Your task to perform on an android device: install app "Speedtest by Ookla" Image 0: 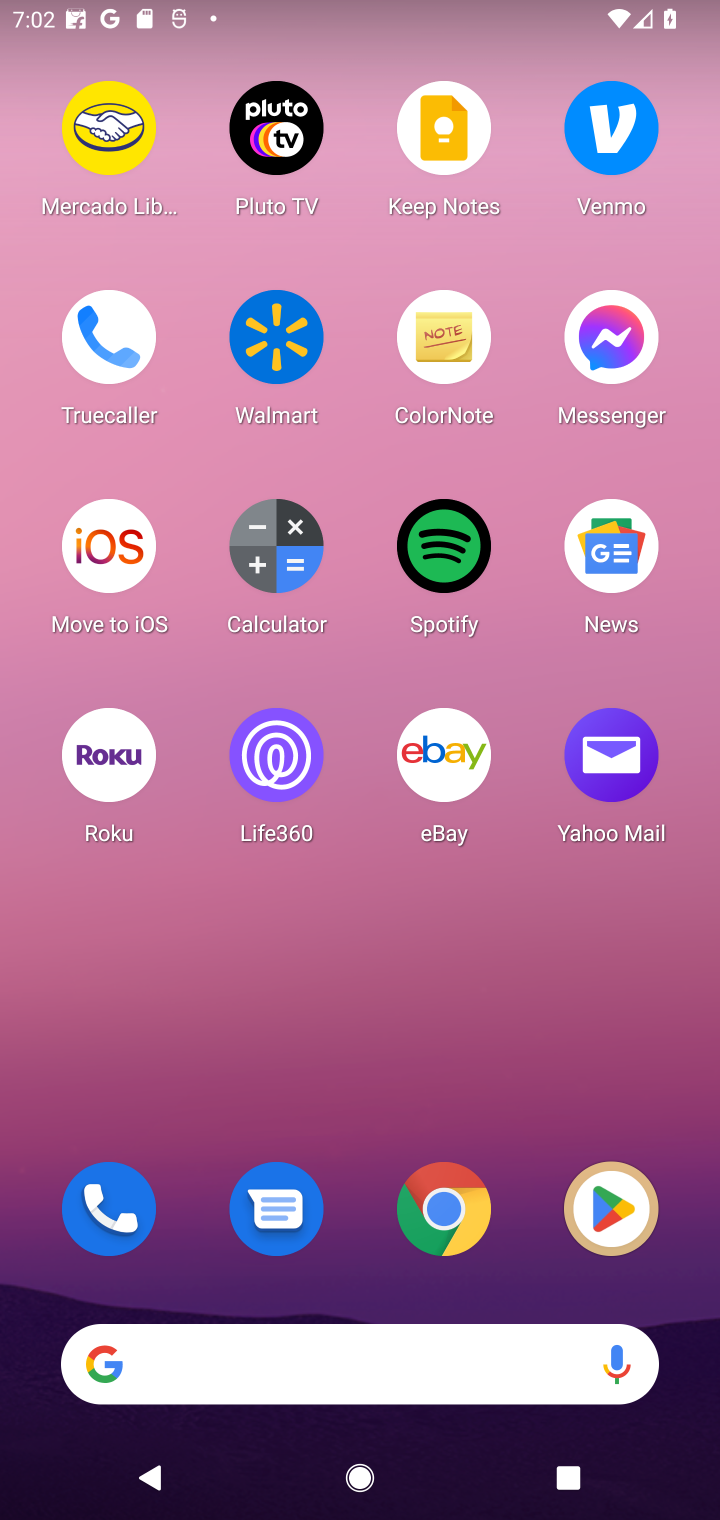
Step 0: click (573, 1232)
Your task to perform on an android device: install app "Speedtest by Ookla" Image 1: 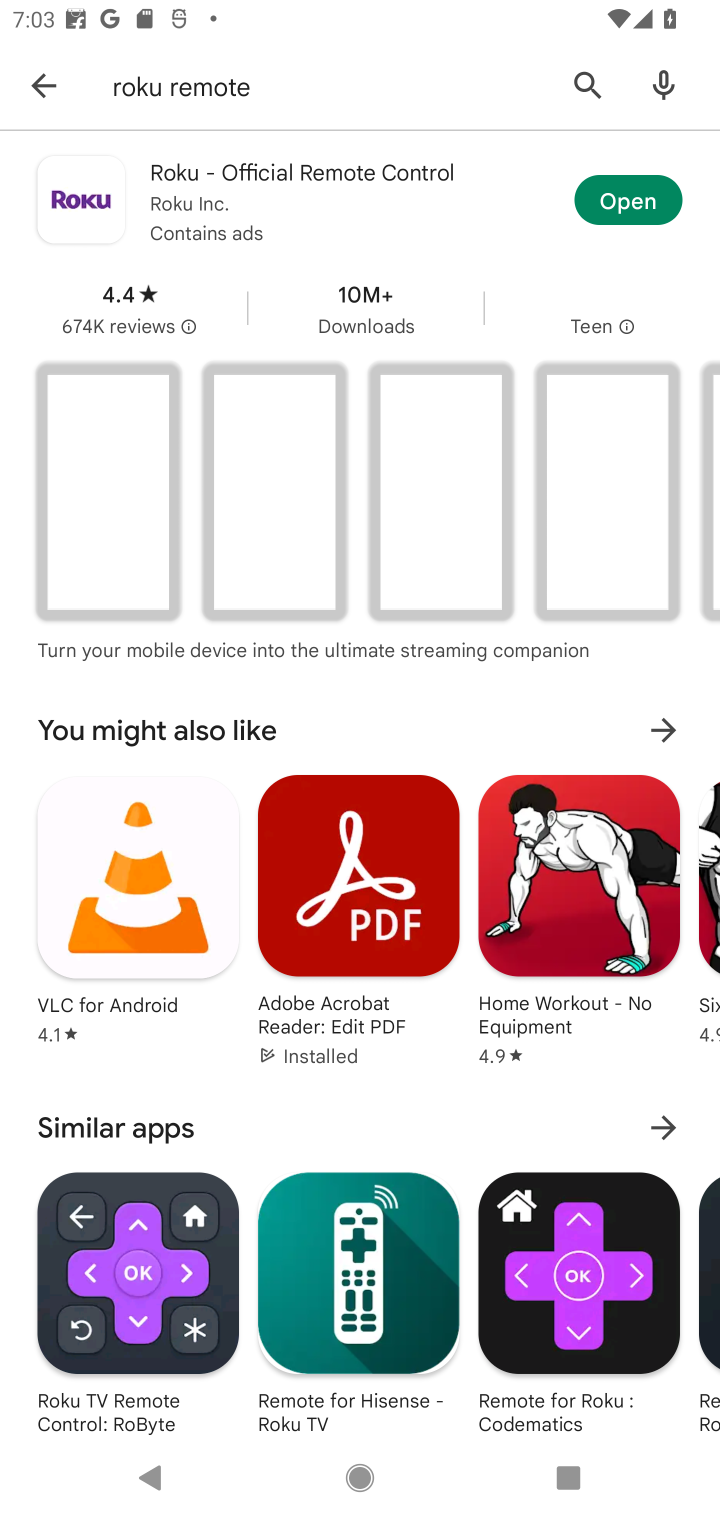
Step 1: click (556, 105)
Your task to perform on an android device: install app "Speedtest by Ookla" Image 2: 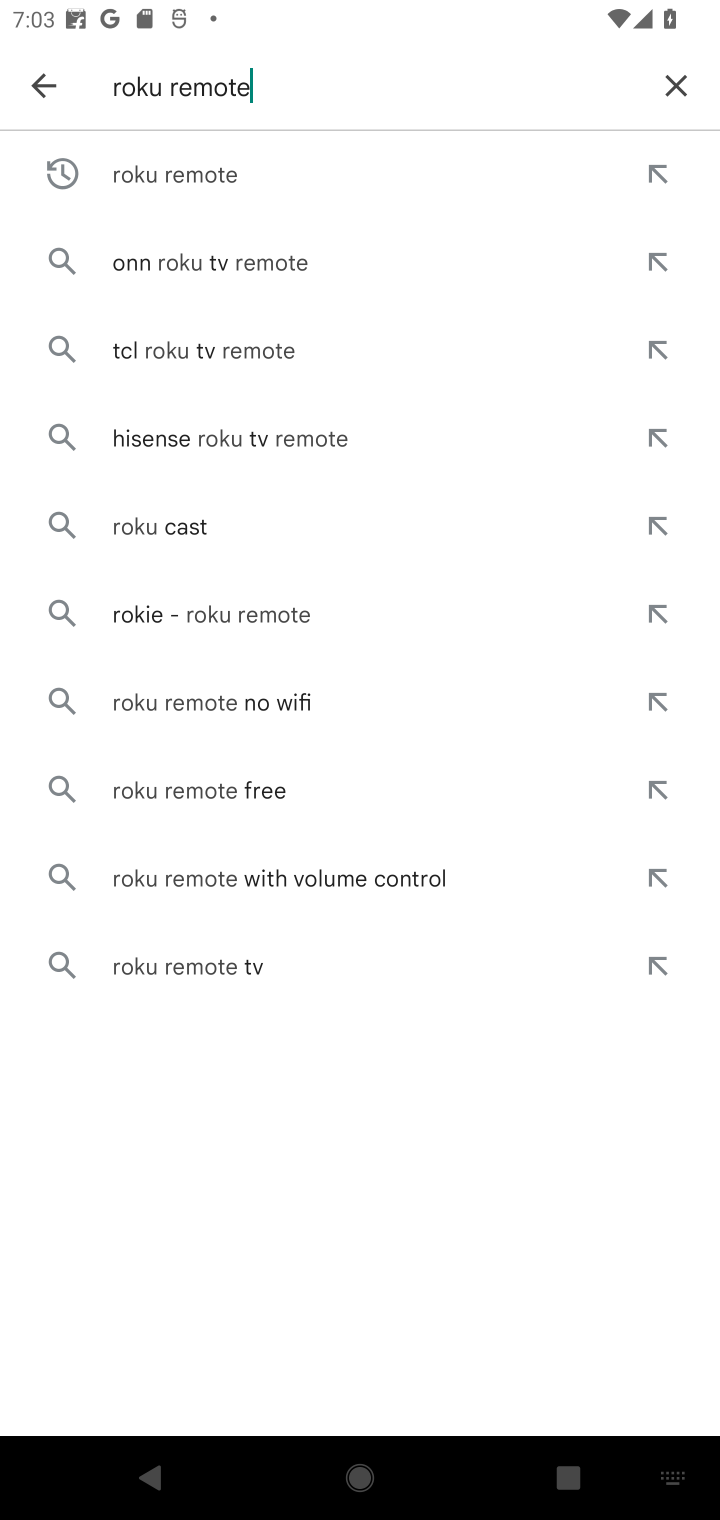
Step 2: click (659, 93)
Your task to perform on an android device: install app "Speedtest by Ookla" Image 3: 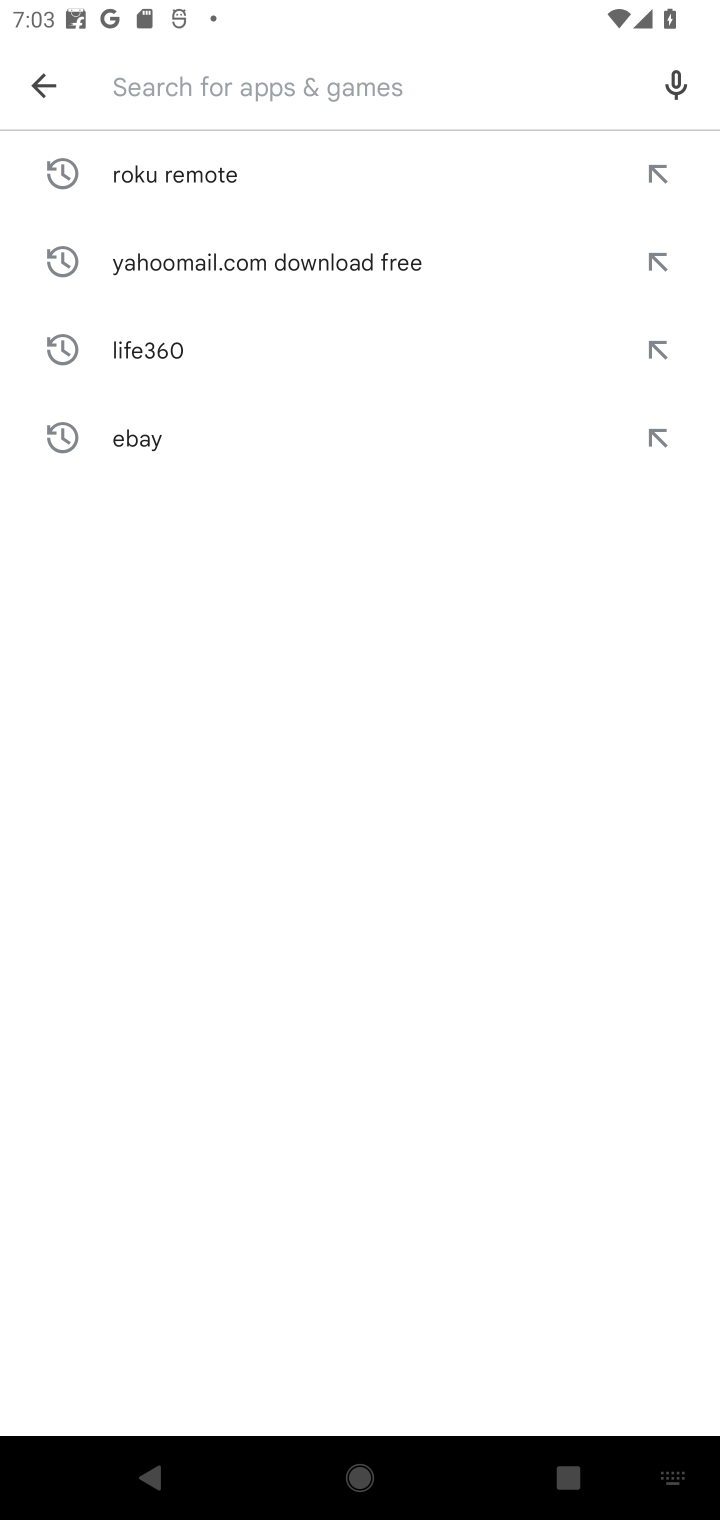
Step 3: type "ookla"
Your task to perform on an android device: install app "Speedtest by Ookla" Image 4: 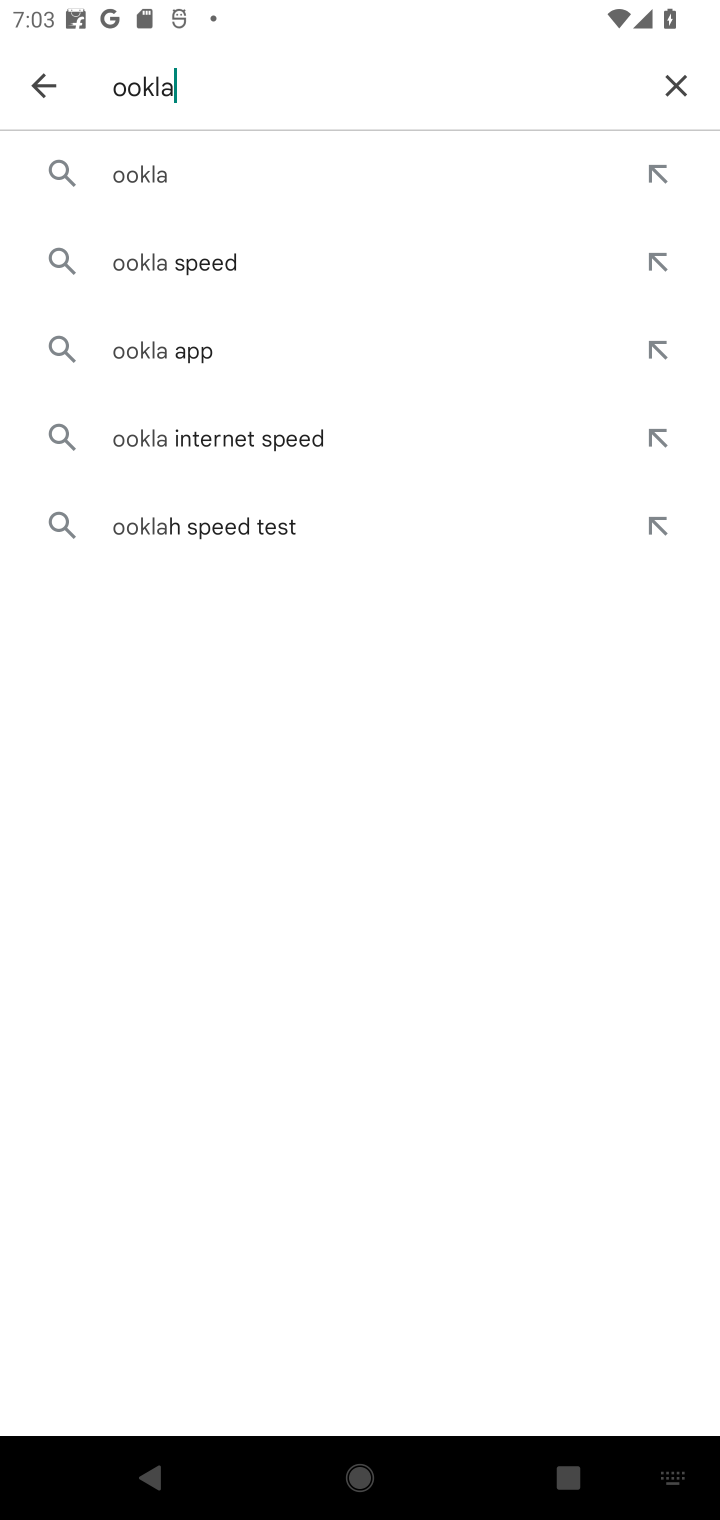
Step 4: click (183, 169)
Your task to perform on an android device: install app "Speedtest by Ookla" Image 5: 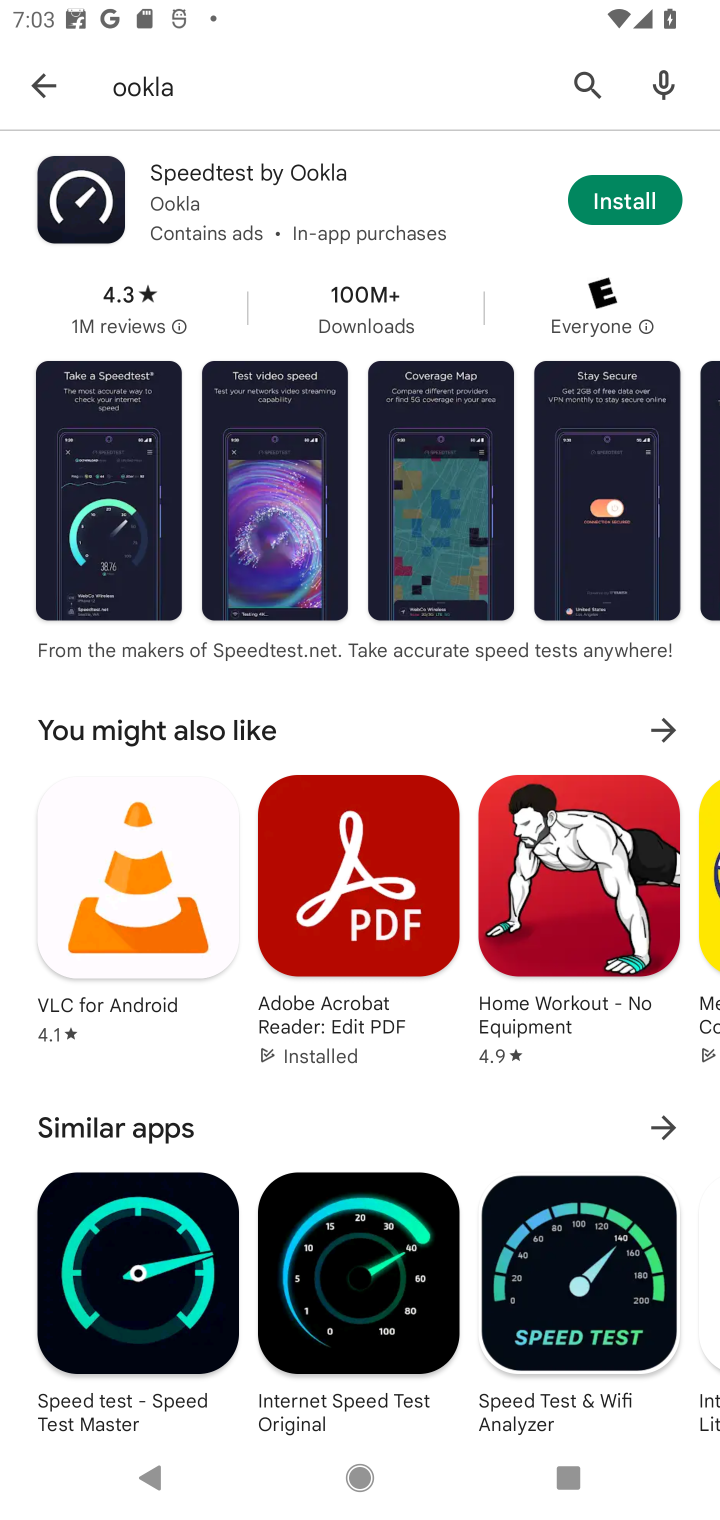
Step 5: click (631, 180)
Your task to perform on an android device: install app "Speedtest by Ookla" Image 6: 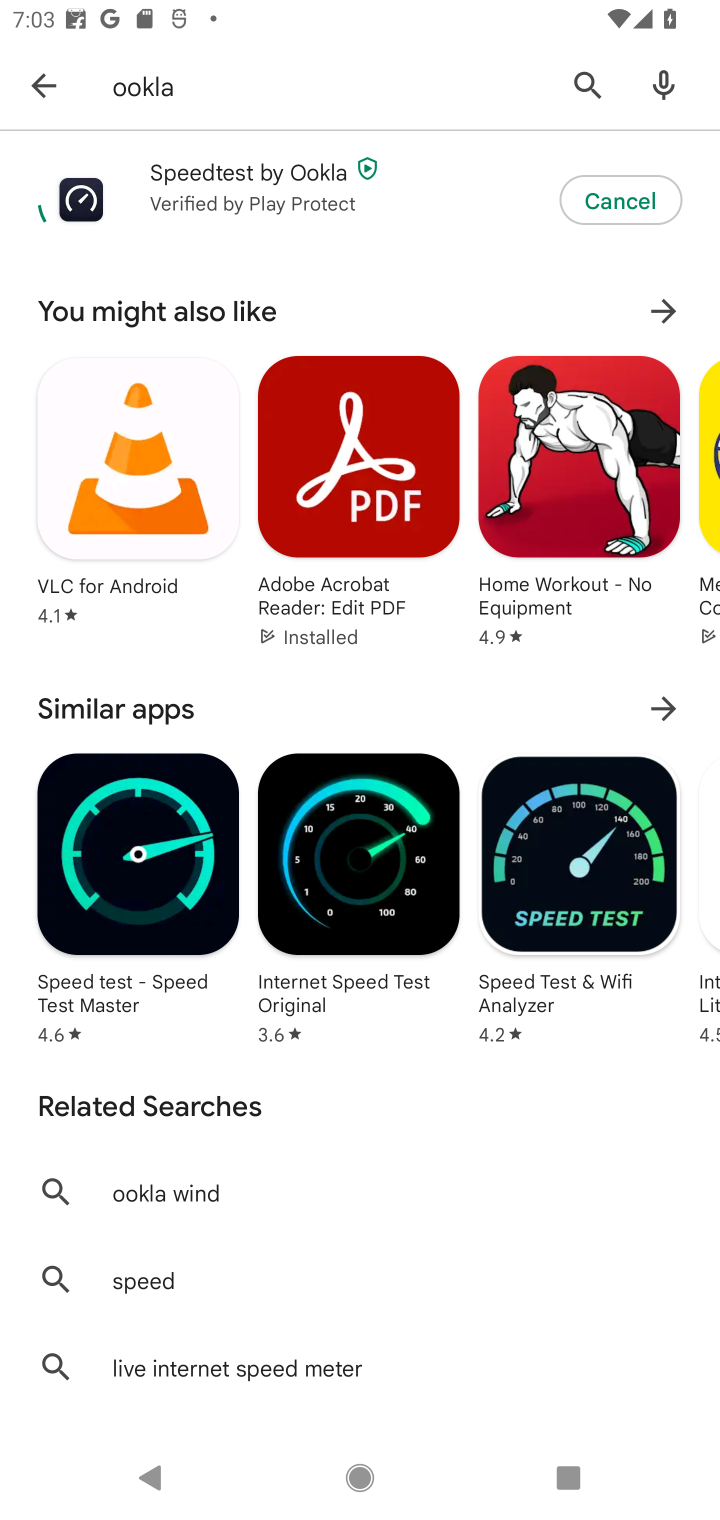
Step 6: task complete